Your task to perform on an android device: Open Yahoo.com Image 0: 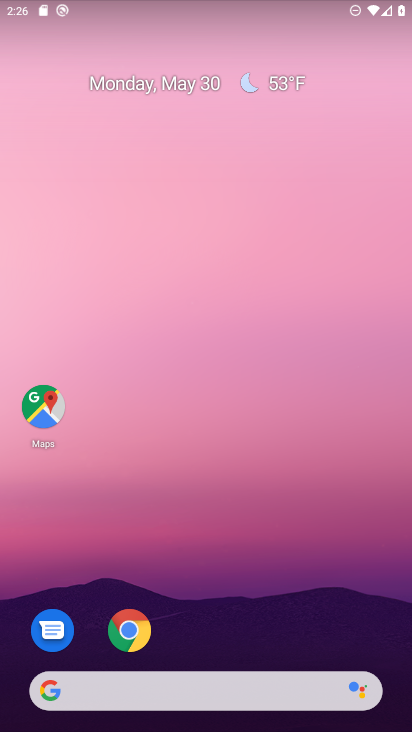
Step 0: click (141, 639)
Your task to perform on an android device: Open Yahoo.com Image 1: 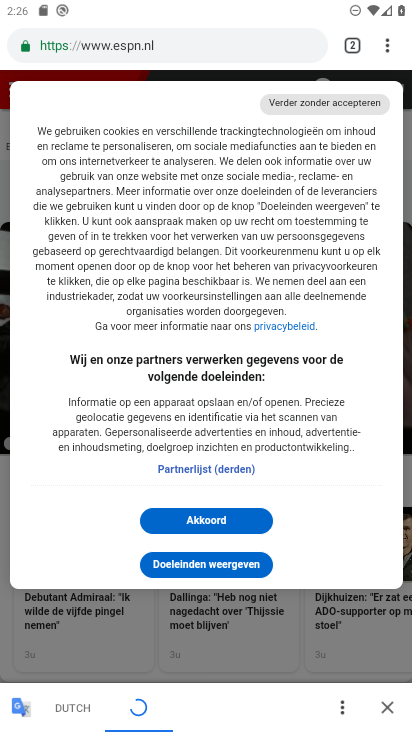
Step 1: drag from (384, 53) to (240, 547)
Your task to perform on an android device: Open Yahoo.com Image 2: 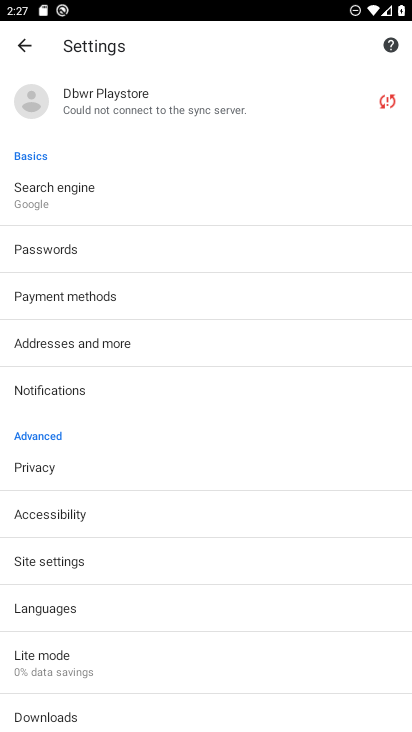
Step 2: press home button
Your task to perform on an android device: Open Yahoo.com Image 3: 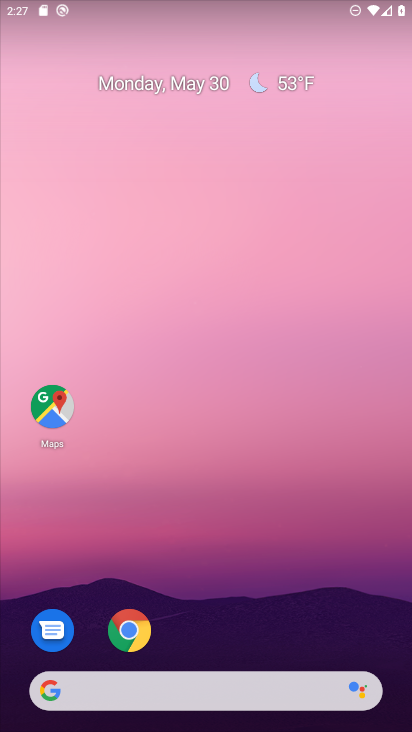
Step 3: click (144, 625)
Your task to perform on an android device: Open Yahoo.com Image 4: 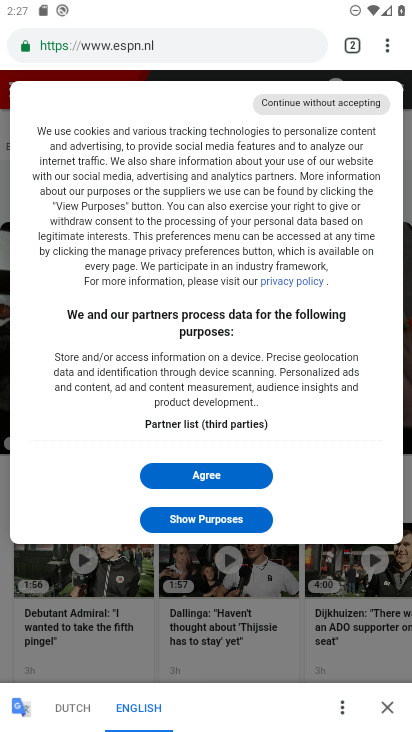
Step 4: click (224, 37)
Your task to perform on an android device: Open Yahoo.com Image 5: 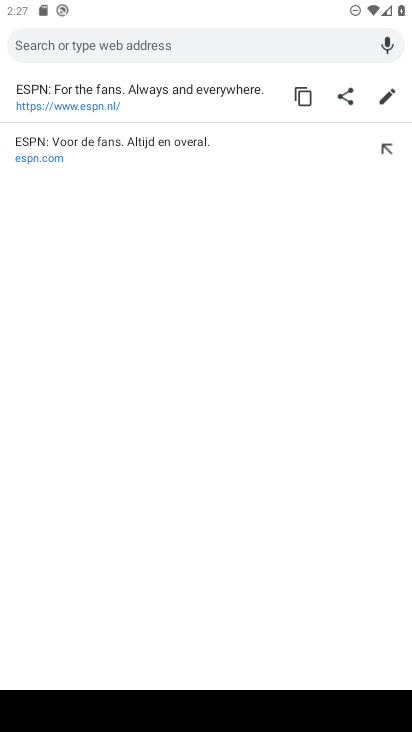
Step 5: type "yahoo.com"
Your task to perform on an android device: Open Yahoo.com Image 6: 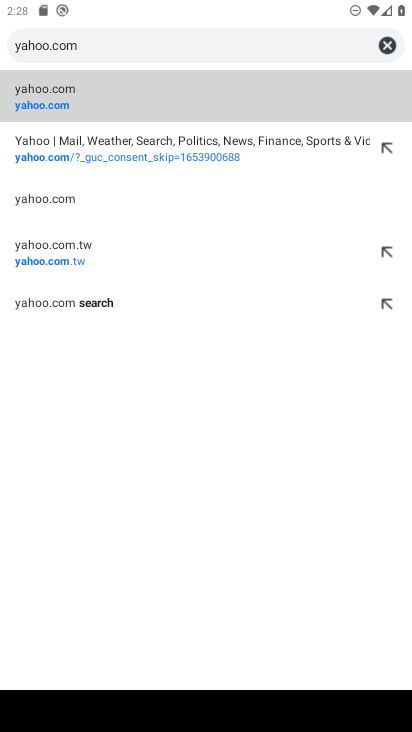
Step 6: click (167, 91)
Your task to perform on an android device: Open Yahoo.com Image 7: 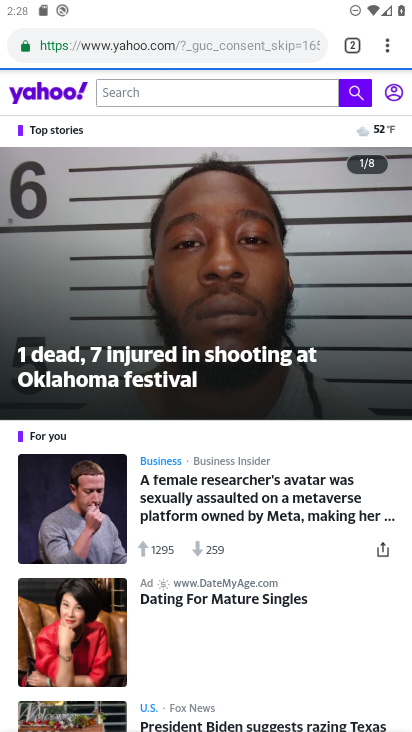
Step 7: task complete